Your task to perform on an android device: What is the news today? Image 0: 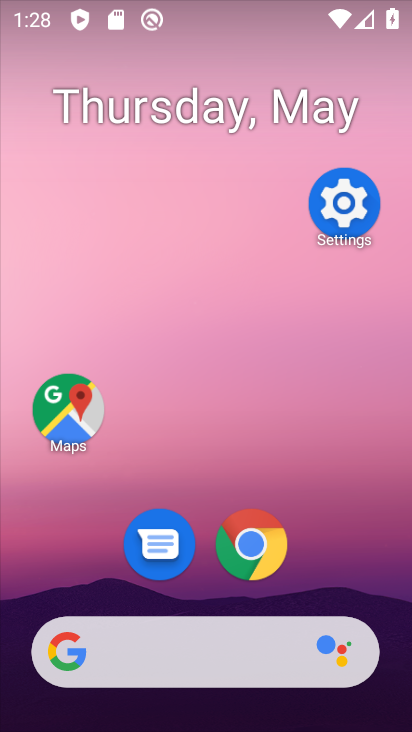
Step 0: click (269, 557)
Your task to perform on an android device: What is the news today? Image 1: 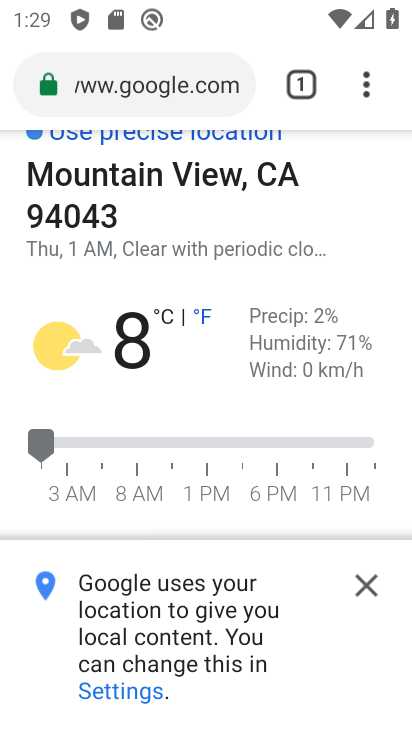
Step 1: click (157, 89)
Your task to perform on an android device: What is the news today? Image 2: 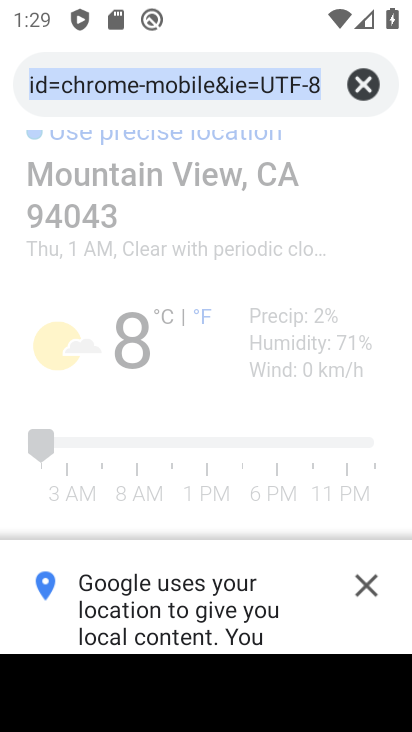
Step 2: type "news"
Your task to perform on an android device: What is the news today? Image 3: 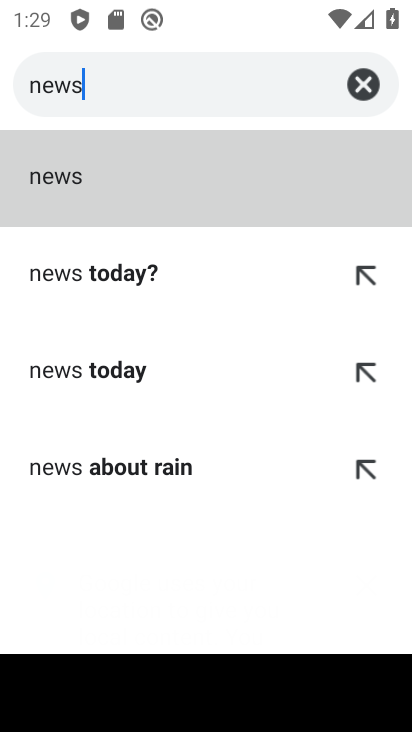
Step 3: click (66, 182)
Your task to perform on an android device: What is the news today? Image 4: 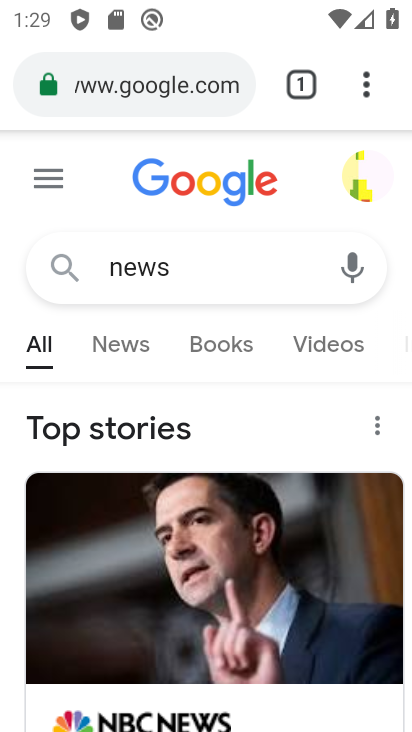
Step 4: drag from (239, 621) to (273, 264)
Your task to perform on an android device: What is the news today? Image 5: 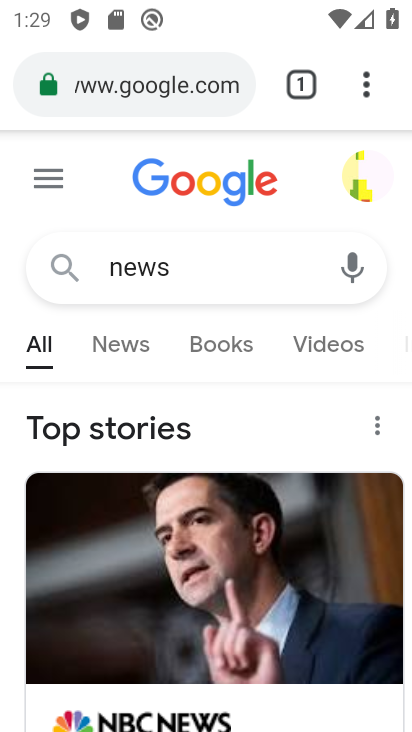
Step 5: click (164, 95)
Your task to perform on an android device: What is the news today? Image 6: 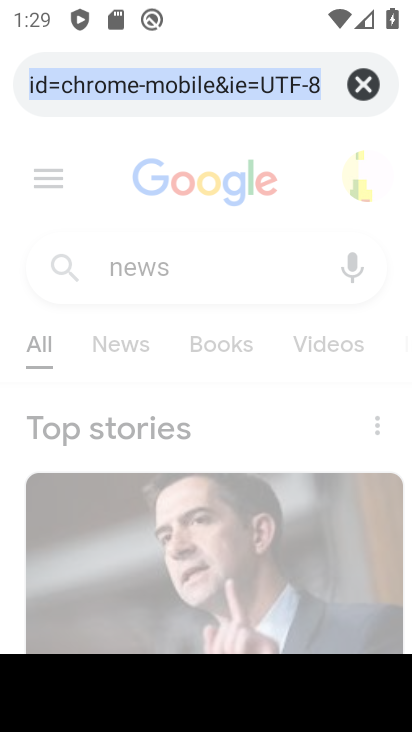
Step 6: type "What is the news today"
Your task to perform on an android device: What is the news today? Image 7: 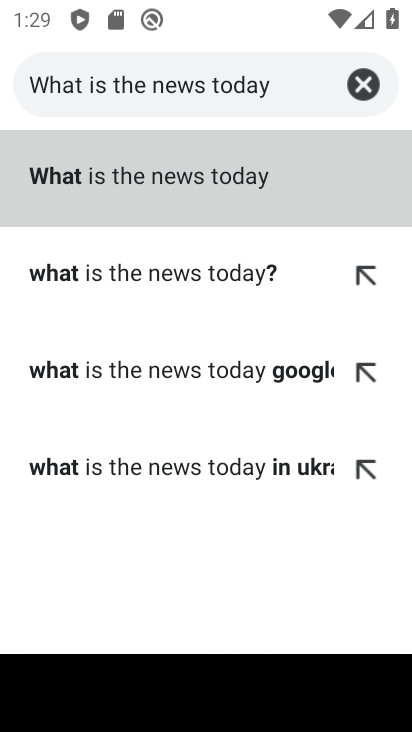
Step 7: click (242, 186)
Your task to perform on an android device: What is the news today? Image 8: 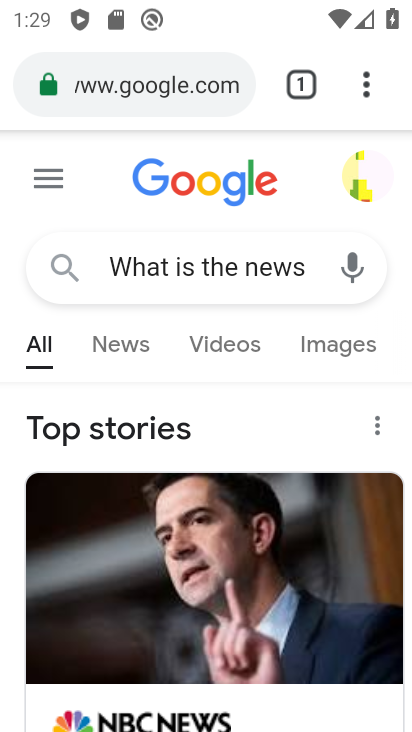
Step 8: task complete